Your task to perform on an android device: check google app version Image 0: 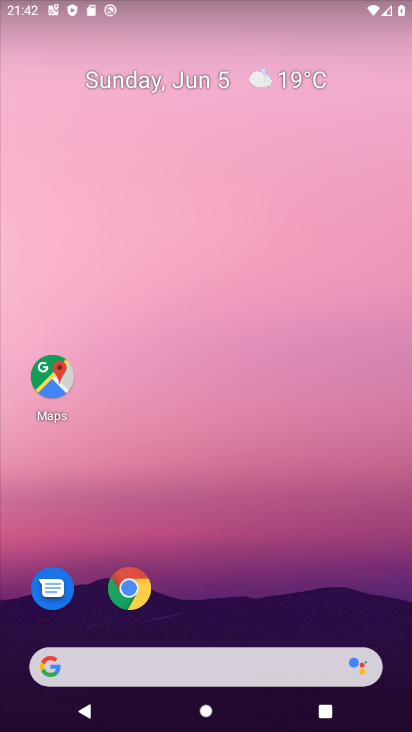
Step 0: drag from (391, 611) to (387, 269)
Your task to perform on an android device: check google app version Image 1: 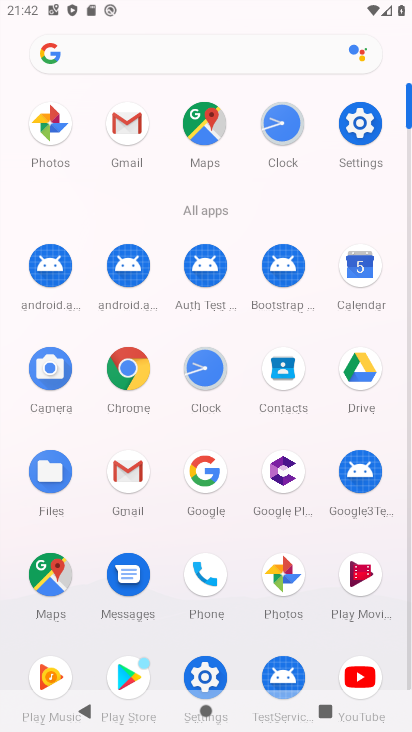
Step 1: click (213, 478)
Your task to perform on an android device: check google app version Image 2: 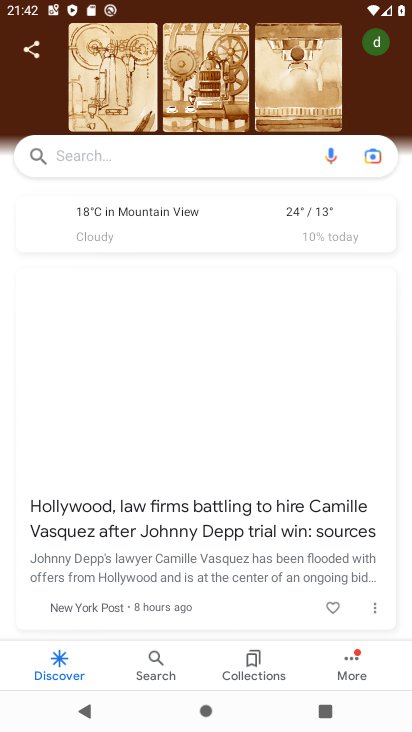
Step 2: click (346, 664)
Your task to perform on an android device: check google app version Image 3: 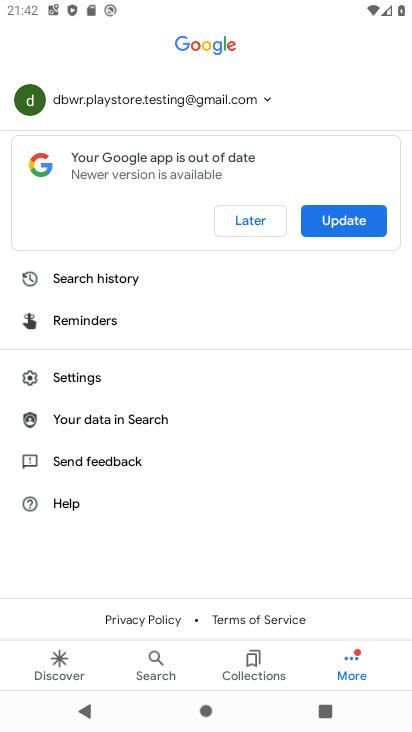
Step 3: click (132, 385)
Your task to perform on an android device: check google app version Image 4: 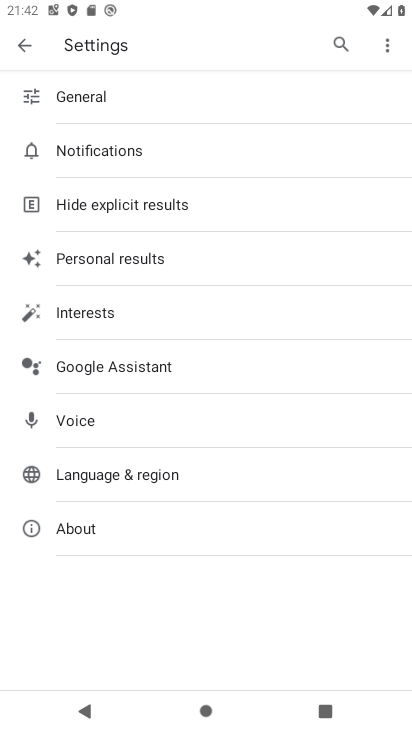
Step 4: click (121, 535)
Your task to perform on an android device: check google app version Image 5: 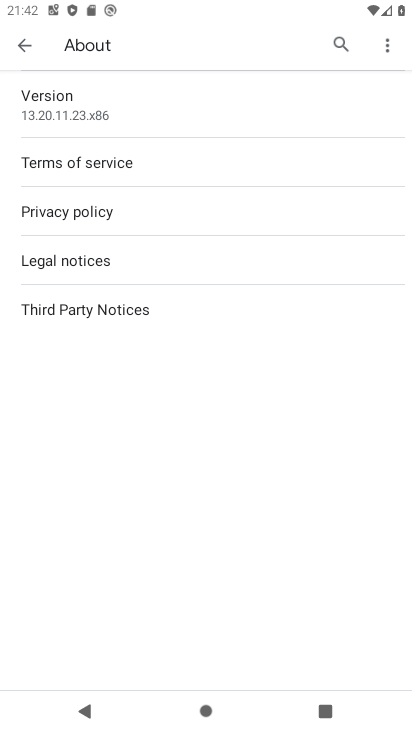
Step 5: task complete